Your task to perform on an android device: Open Chrome and go to settings Image 0: 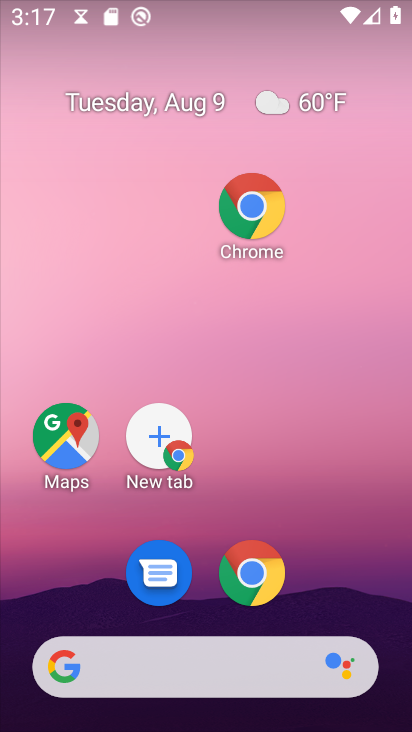
Step 0: drag from (226, 459) to (193, 221)
Your task to perform on an android device: Open Chrome and go to settings Image 1: 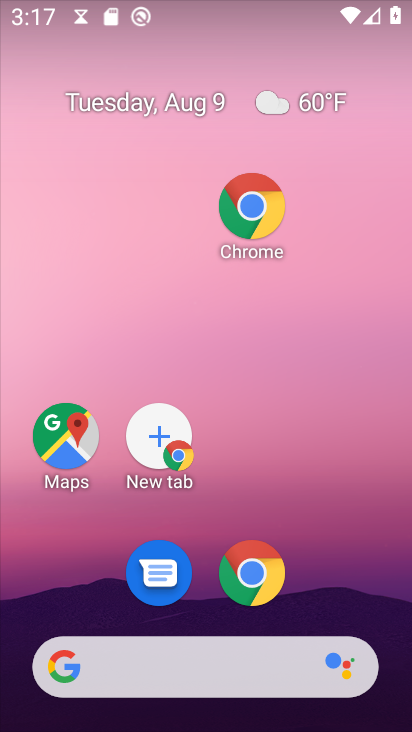
Step 1: drag from (218, 696) to (144, 161)
Your task to perform on an android device: Open Chrome and go to settings Image 2: 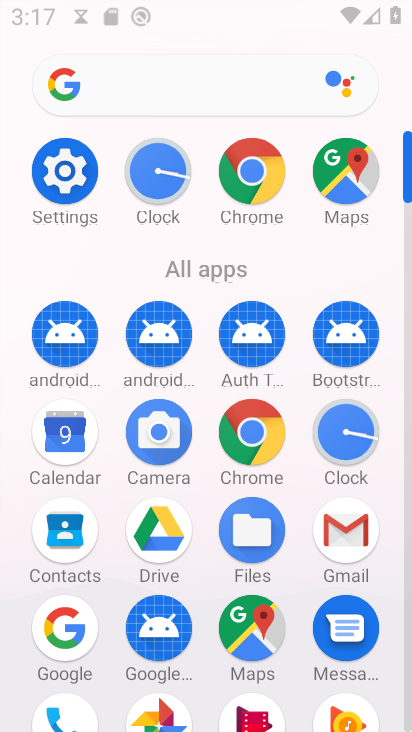
Step 2: drag from (247, 561) to (235, 166)
Your task to perform on an android device: Open Chrome and go to settings Image 3: 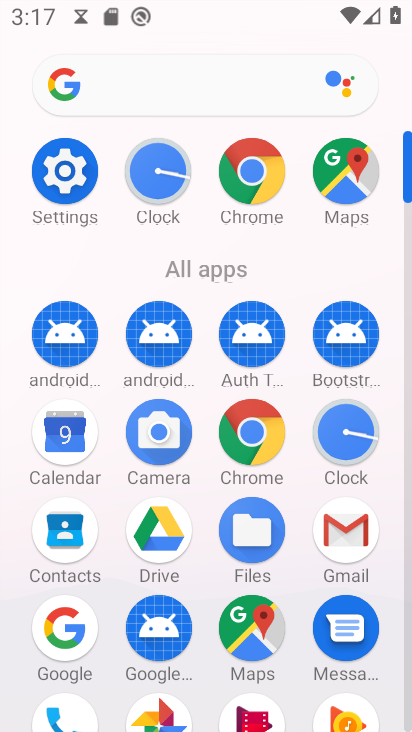
Step 3: drag from (260, 637) to (223, 126)
Your task to perform on an android device: Open Chrome and go to settings Image 4: 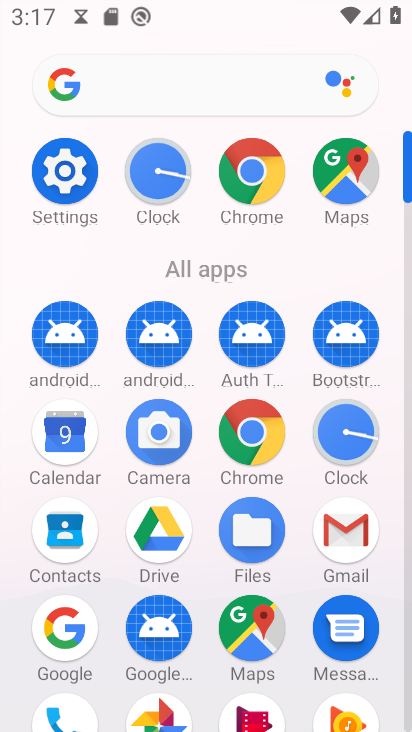
Step 4: click (254, 170)
Your task to perform on an android device: Open Chrome and go to settings Image 5: 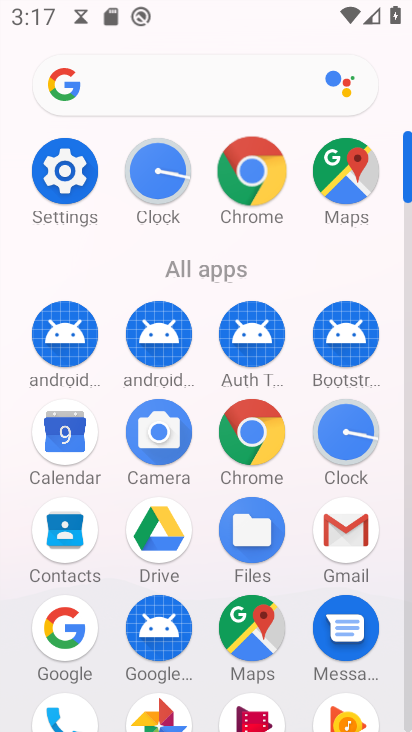
Step 5: click (263, 174)
Your task to perform on an android device: Open Chrome and go to settings Image 6: 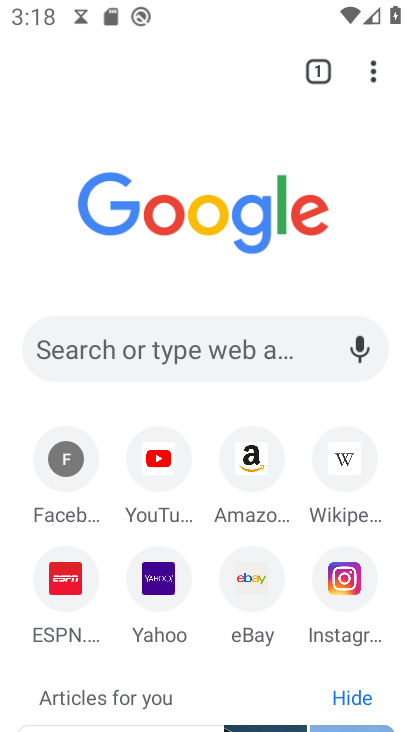
Step 6: drag from (370, 61) to (326, 558)
Your task to perform on an android device: Open Chrome and go to settings Image 7: 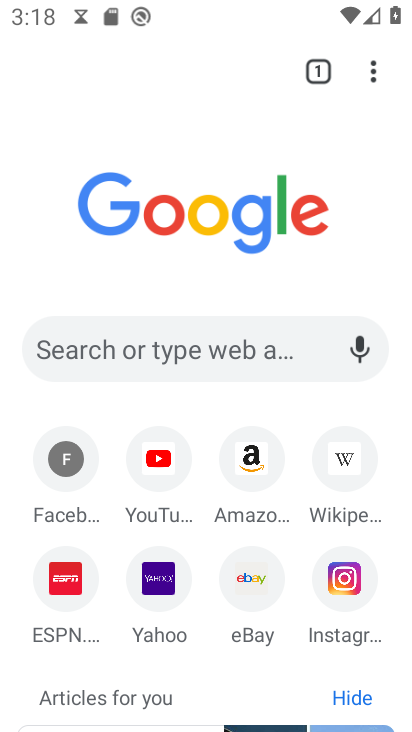
Step 7: drag from (367, 72) to (121, 606)
Your task to perform on an android device: Open Chrome and go to settings Image 8: 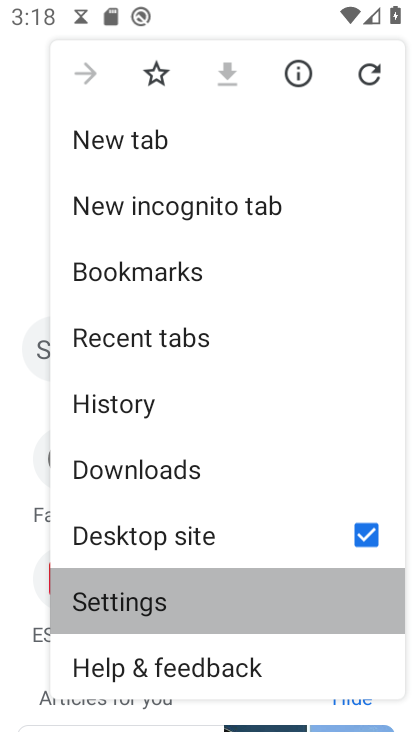
Step 8: click (116, 605)
Your task to perform on an android device: Open Chrome and go to settings Image 9: 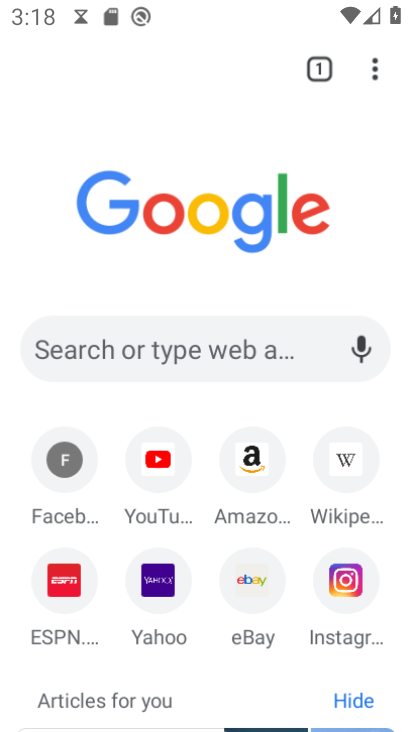
Step 9: click (120, 604)
Your task to perform on an android device: Open Chrome and go to settings Image 10: 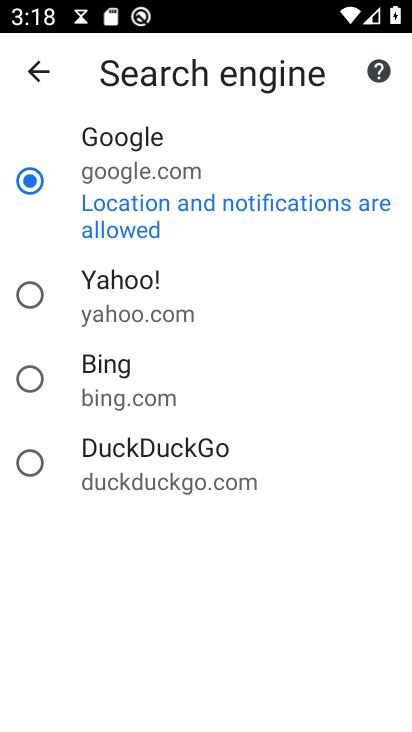
Step 10: click (47, 71)
Your task to perform on an android device: Open Chrome and go to settings Image 11: 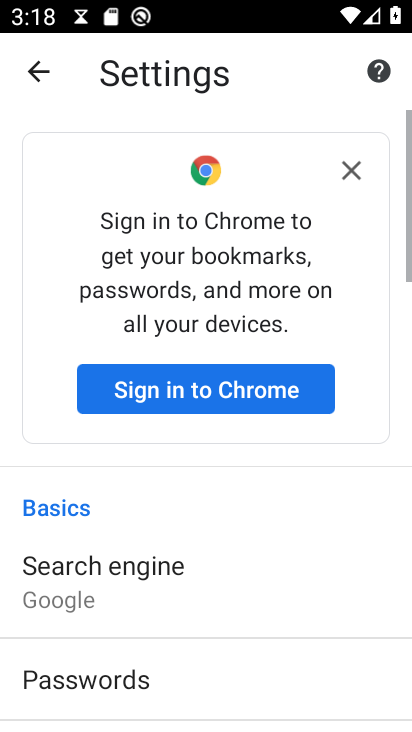
Step 11: click (44, 70)
Your task to perform on an android device: Open Chrome and go to settings Image 12: 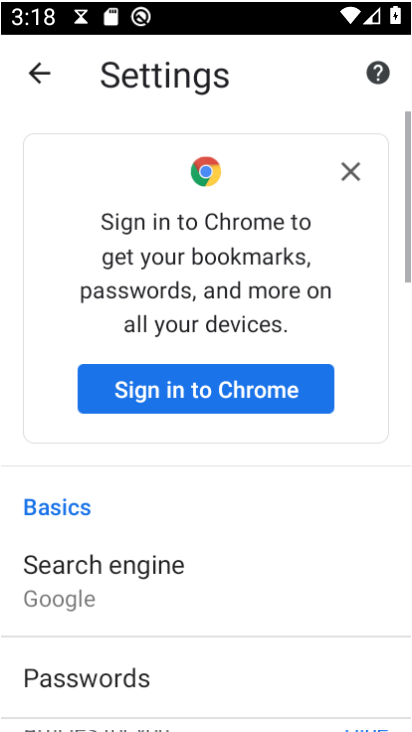
Step 12: click (49, 67)
Your task to perform on an android device: Open Chrome and go to settings Image 13: 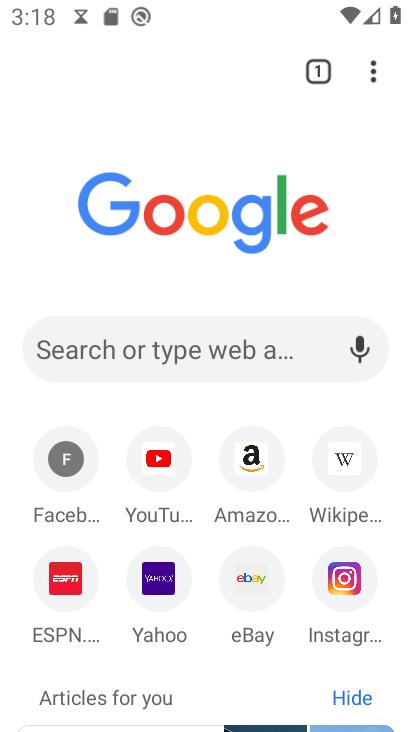
Step 13: task complete